Your task to perform on an android device: Go to CNN.com Image 0: 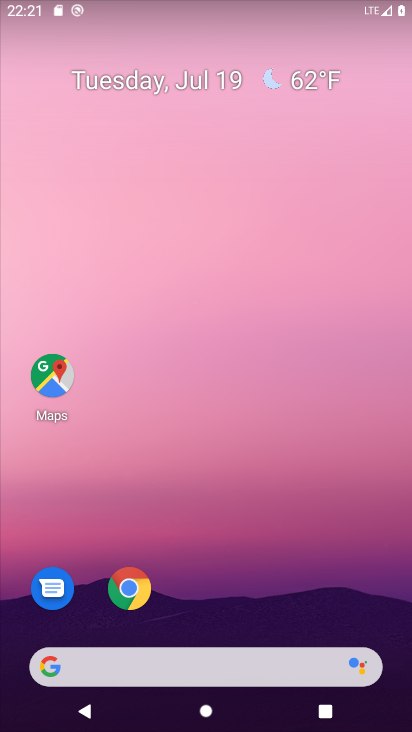
Step 0: click (132, 586)
Your task to perform on an android device: Go to CNN.com Image 1: 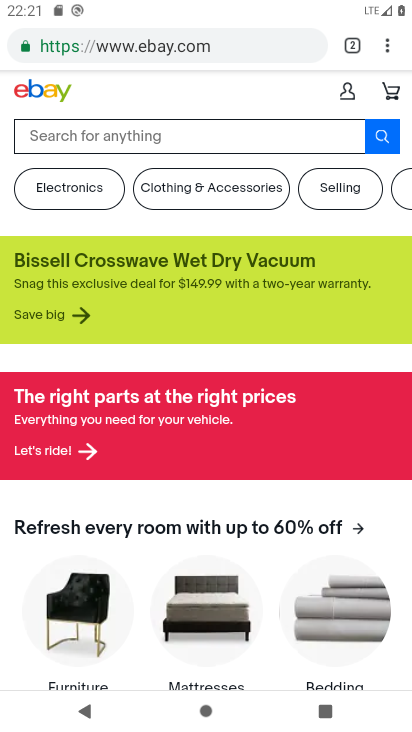
Step 1: click (174, 49)
Your task to perform on an android device: Go to CNN.com Image 2: 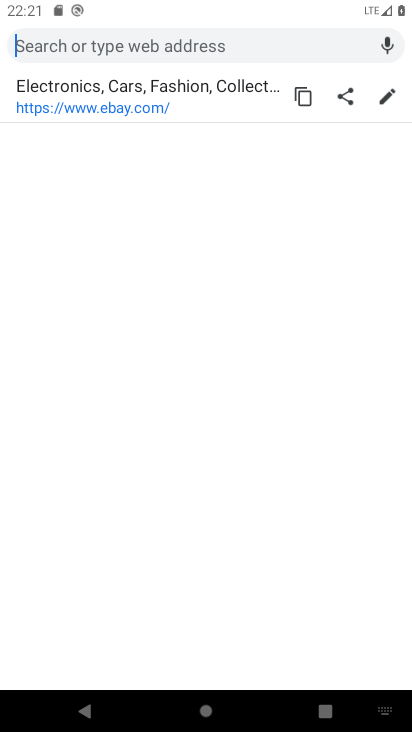
Step 2: type "www.cnn.com"
Your task to perform on an android device: Go to CNN.com Image 3: 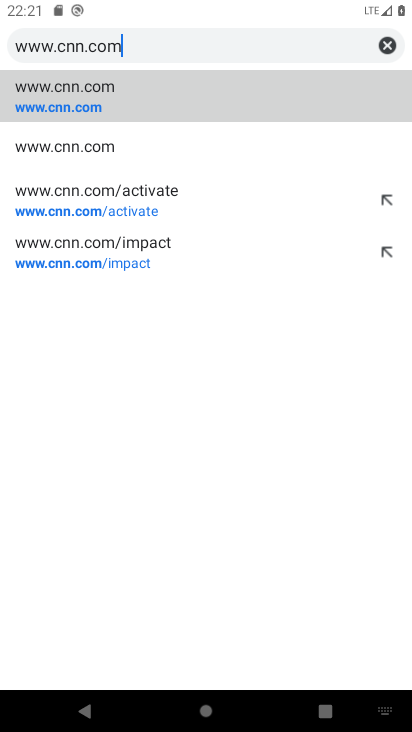
Step 3: click (56, 115)
Your task to perform on an android device: Go to CNN.com Image 4: 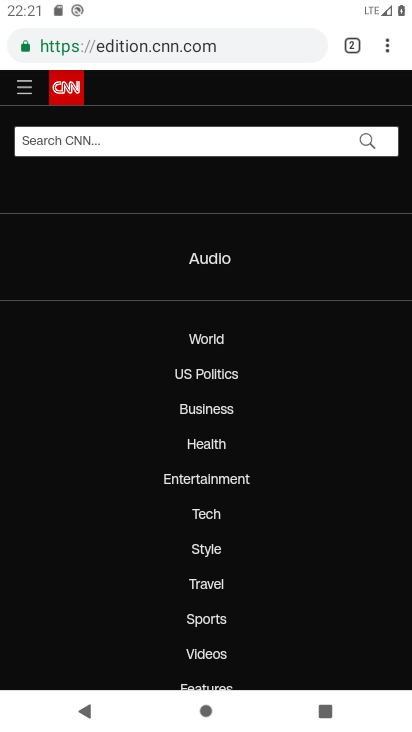
Step 4: task complete